Your task to perform on an android device: Go to Maps Image 0: 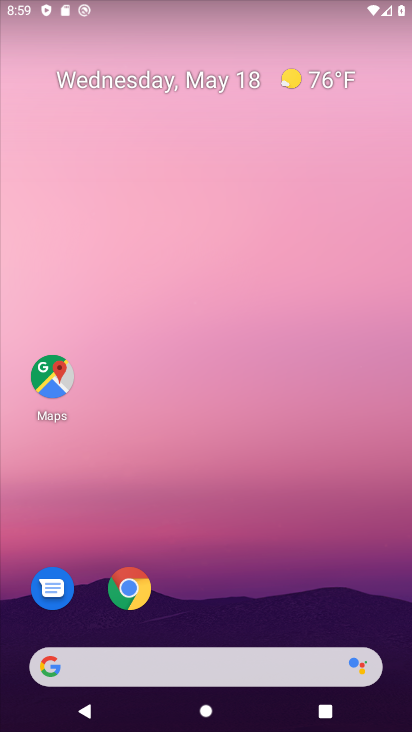
Step 0: click (40, 389)
Your task to perform on an android device: Go to Maps Image 1: 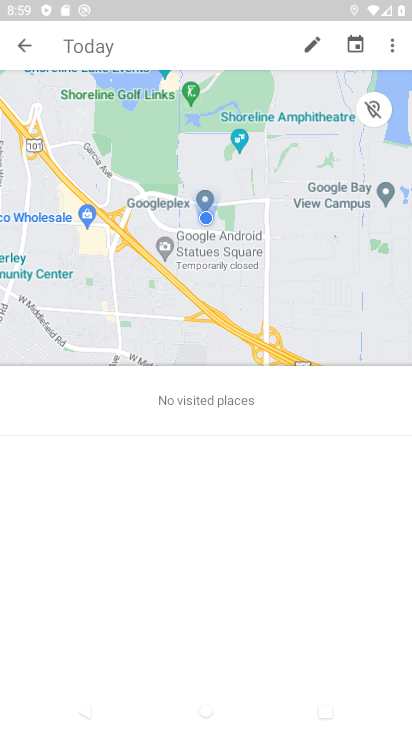
Step 1: task complete